Your task to perform on an android device: Go to internet settings Image 0: 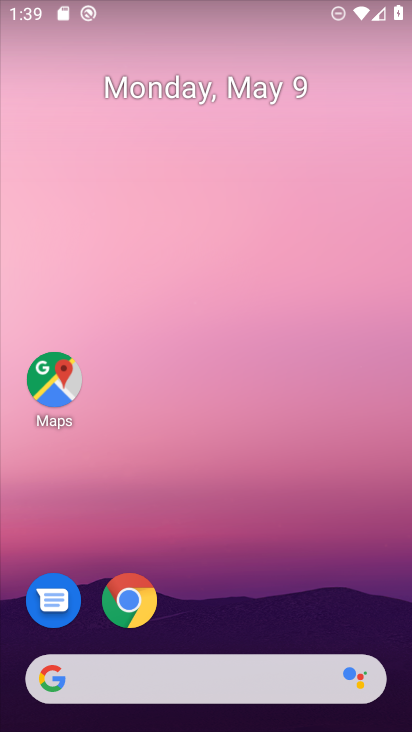
Step 0: press home button
Your task to perform on an android device: Go to internet settings Image 1: 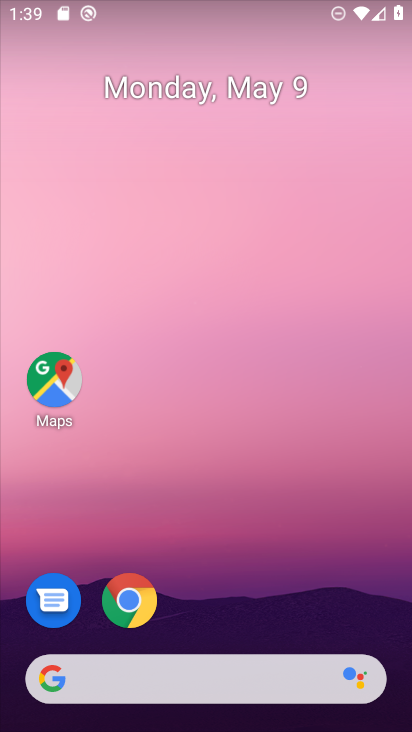
Step 1: drag from (164, 678) to (324, 42)
Your task to perform on an android device: Go to internet settings Image 2: 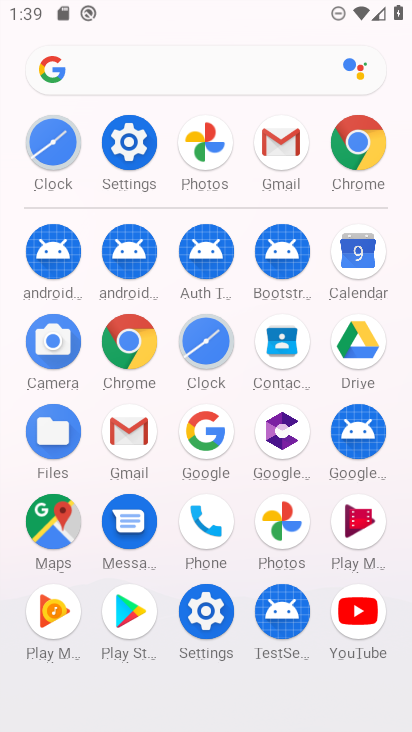
Step 2: click (139, 146)
Your task to perform on an android device: Go to internet settings Image 3: 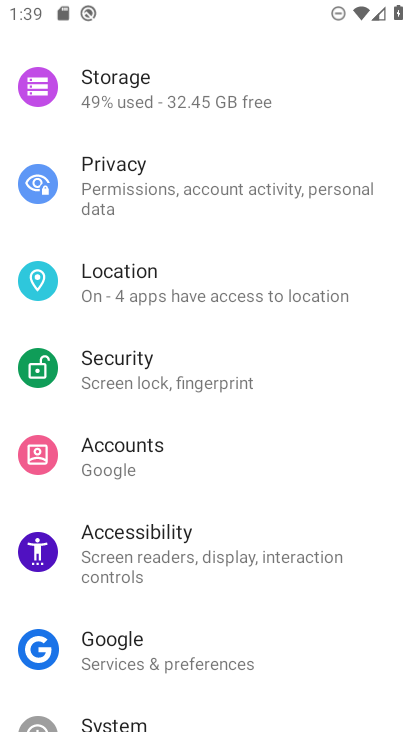
Step 3: drag from (304, 62) to (202, 636)
Your task to perform on an android device: Go to internet settings Image 4: 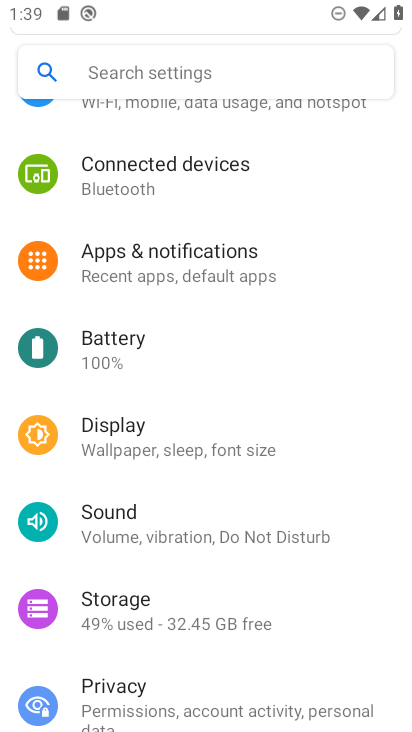
Step 4: drag from (325, 136) to (248, 644)
Your task to perform on an android device: Go to internet settings Image 5: 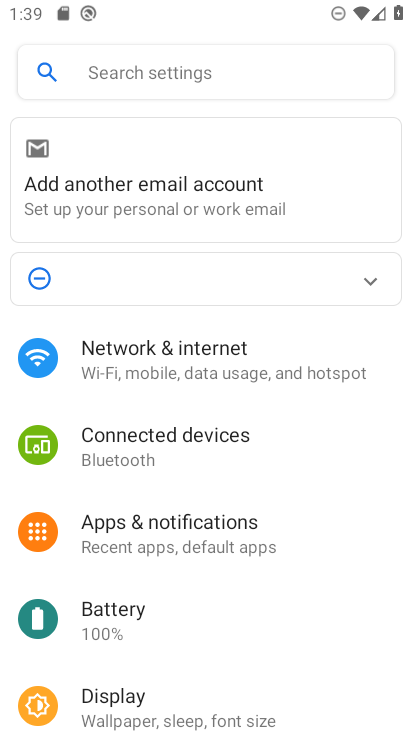
Step 5: click (223, 353)
Your task to perform on an android device: Go to internet settings Image 6: 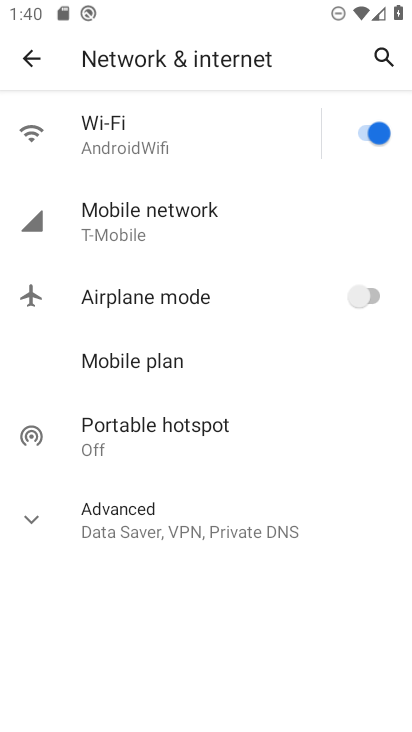
Step 6: task complete